Your task to perform on an android device: turn on improve location accuracy Image 0: 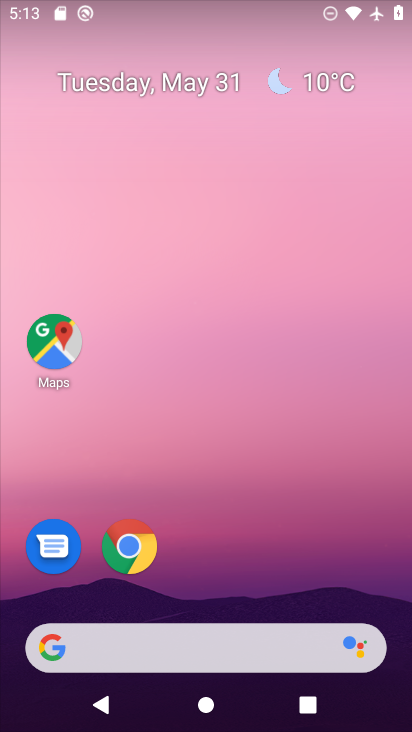
Step 0: drag from (310, 555) to (102, 68)
Your task to perform on an android device: turn on improve location accuracy Image 1: 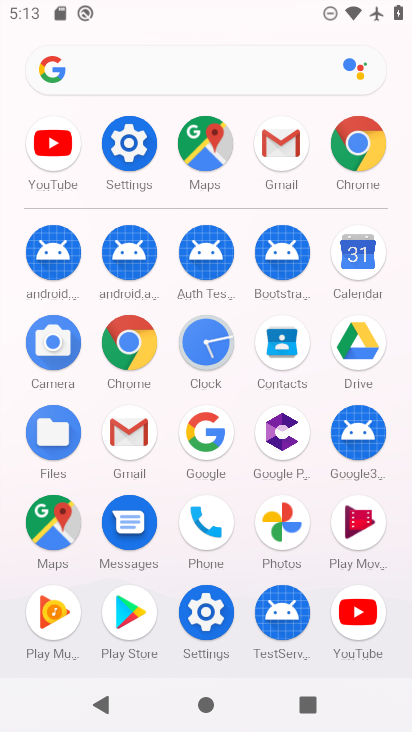
Step 1: click (140, 129)
Your task to perform on an android device: turn on improve location accuracy Image 2: 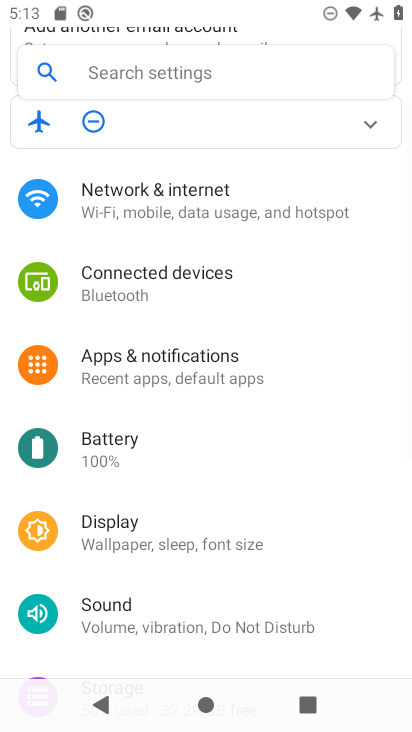
Step 2: drag from (223, 541) to (180, 102)
Your task to perform on an android device: turn on improve location accuracy Image 3: 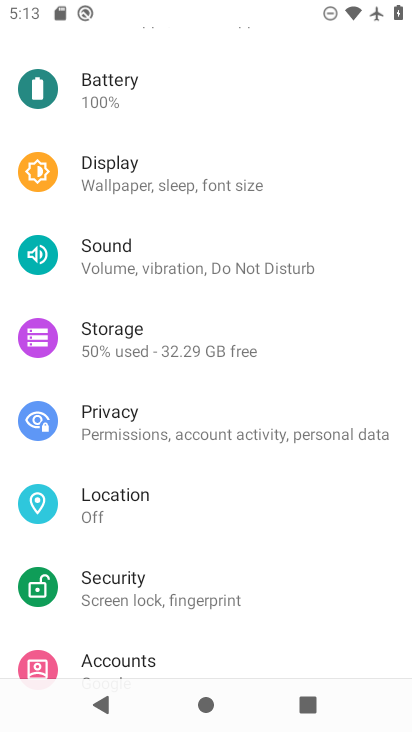
Step 3: click (183, 518)
Your task to perform on an android device: turn on improve location accuracy Image 4: 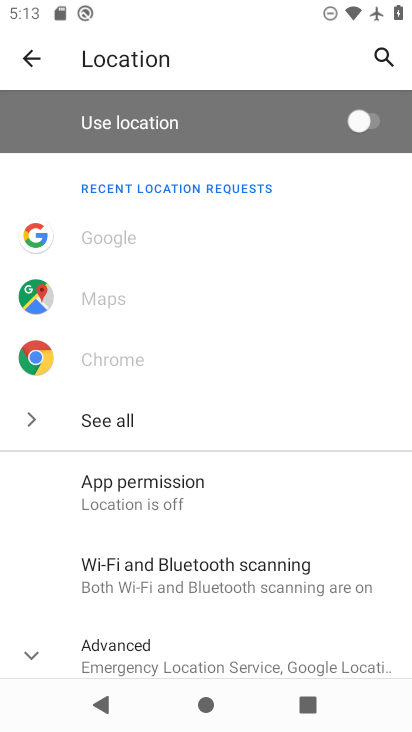
Step 4: drag from (251, 521) to (254, 261)
Your task to perform on an android device: turn on improve location accuracy Image 5: 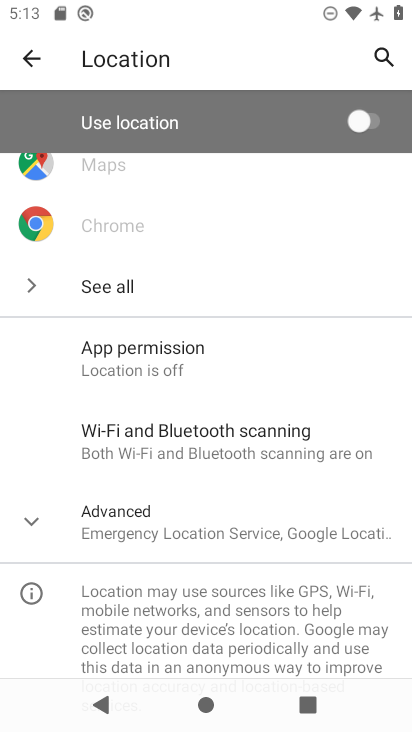
Step 5: drag from (216, 509) to (206, 285)
Your task to perform on an android device: turn on improve location accuracy Image 6: 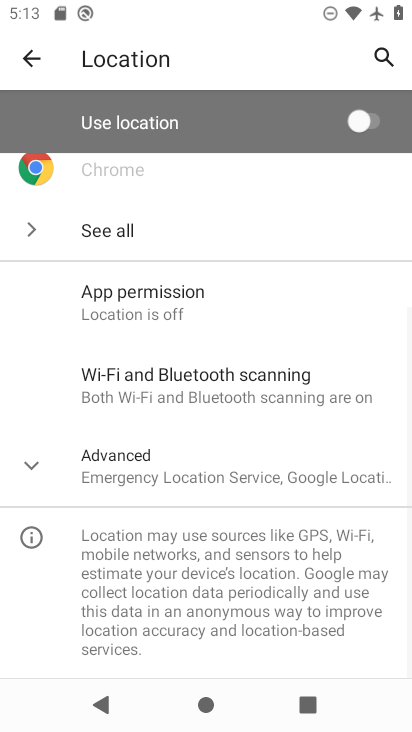
Step 6: click (181, 458)
Your task to perform on an android device: turn on improve location accuracy Image 7: 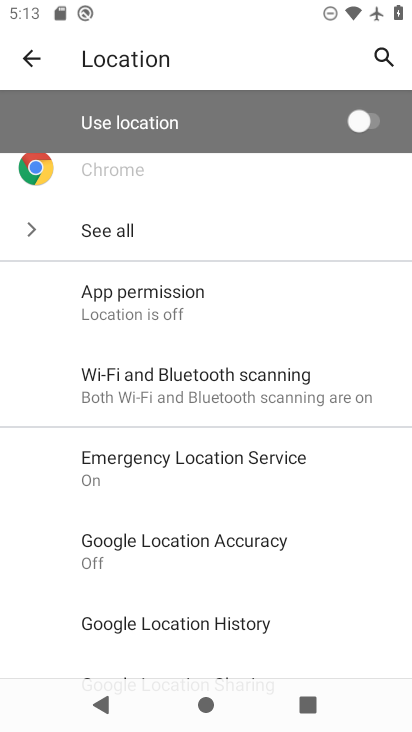
Step 7: click (260, 553)
Your task to perform on an android device: turn on improve location accuracy Image 8: 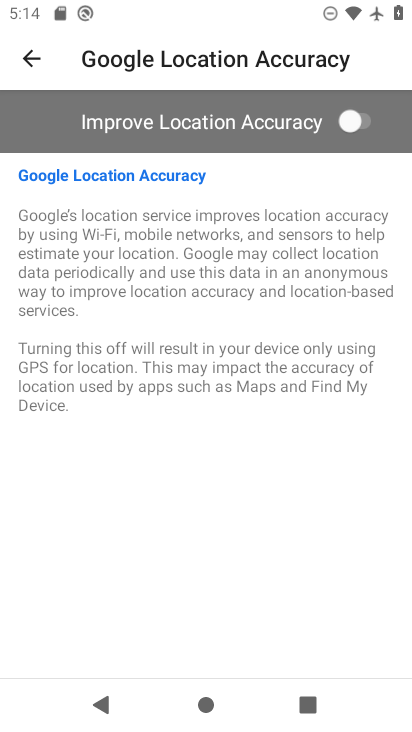
Step 8: click (355, 113)
Your task to perform on an android device: turn on improve location accuracy Image 9: 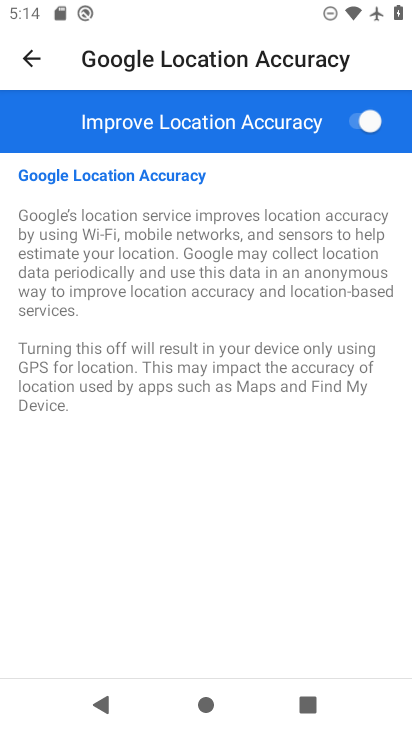
Step 9: task complete